Your task to perform on an android device: change the clock style Image 0: 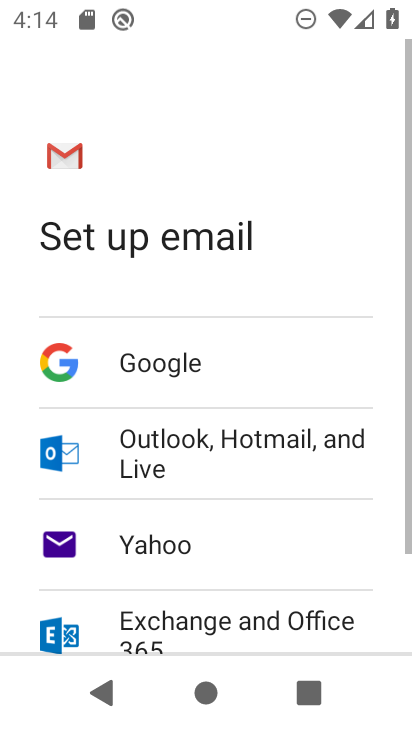
Step 0: press home button
Your task to perform on an android device: change the clock style Image 1: 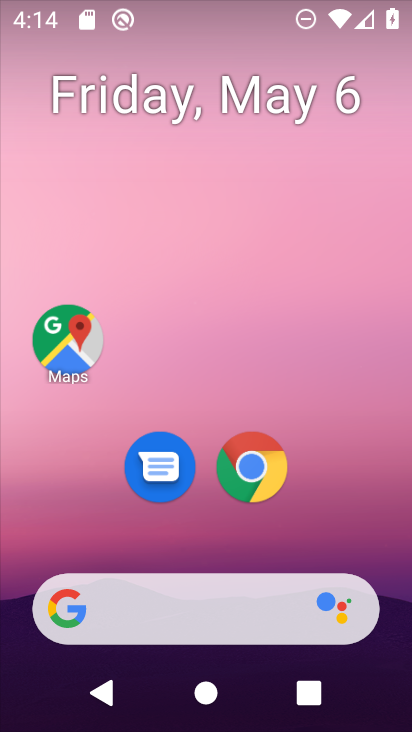
Step 1: drag from (327, 529) to (288, 36)
Your task to perform on an android device: change the clock style Image 2: 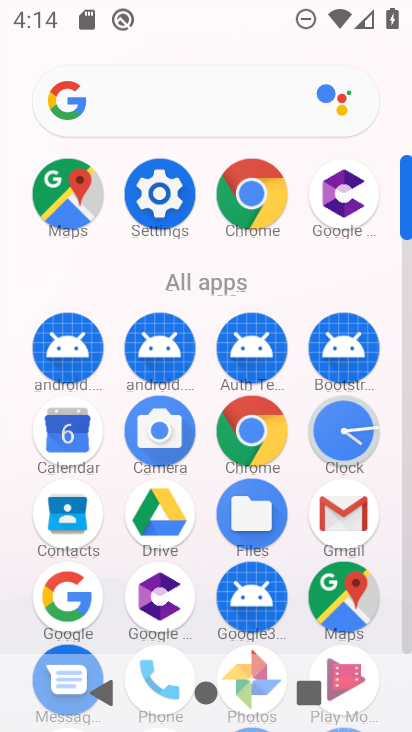
Step 2: click (335, 453)
Your task to perform on an android device: change the clock style Image 3: 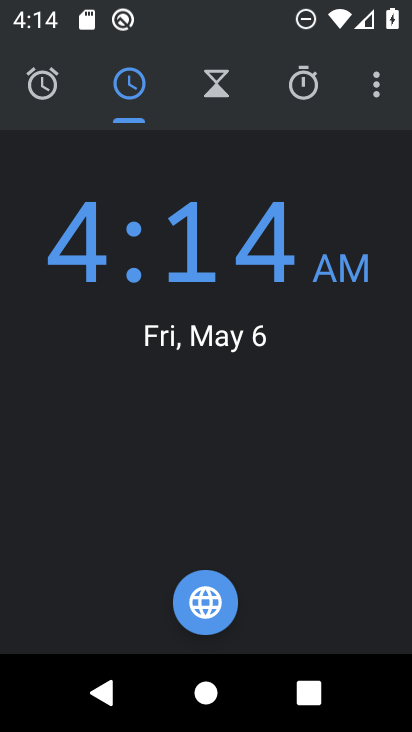
Step 3: click (372, 91)
Your task to perform on an android device: change the clock style Image 4: 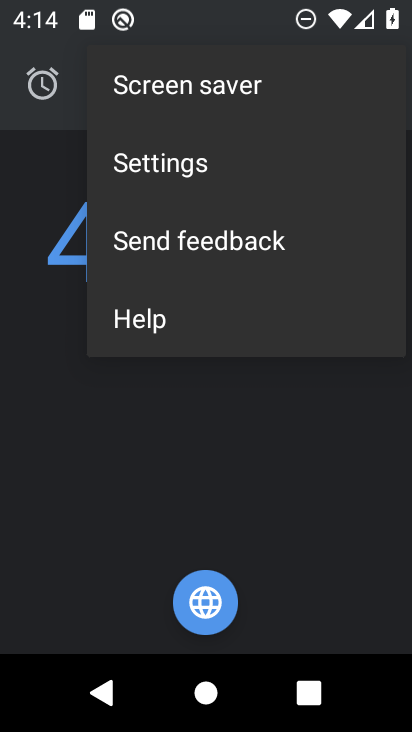
Step 4: click (182, 153)
Your task to perform on an android device: change the clock style Image 5: 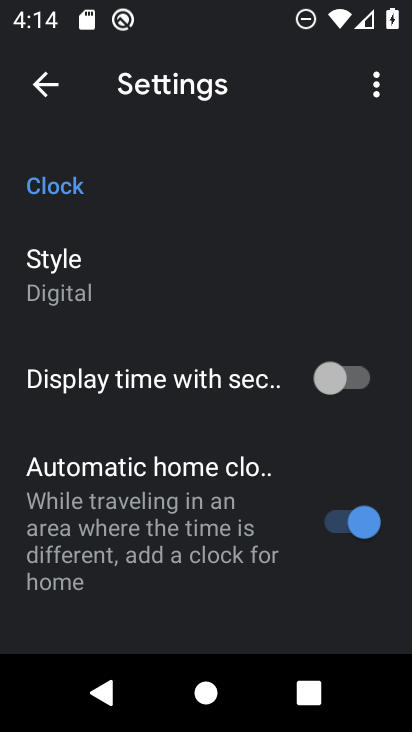
Step 5: click (96, 255)
Your task to perform on an android device: change the clock style Image 6: 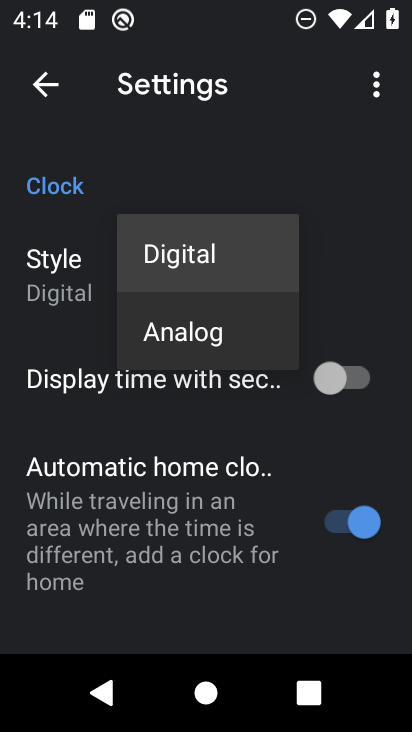
Step 6: click (189, 339)
Your task to perform on an android device: change the clock style Image 7: 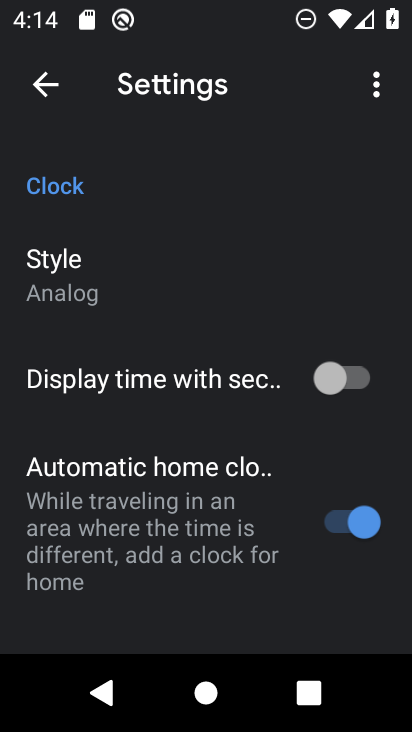
Step 7: task complete